Your task to perform on an android device: refresh tabs in the chrome app Image 0: 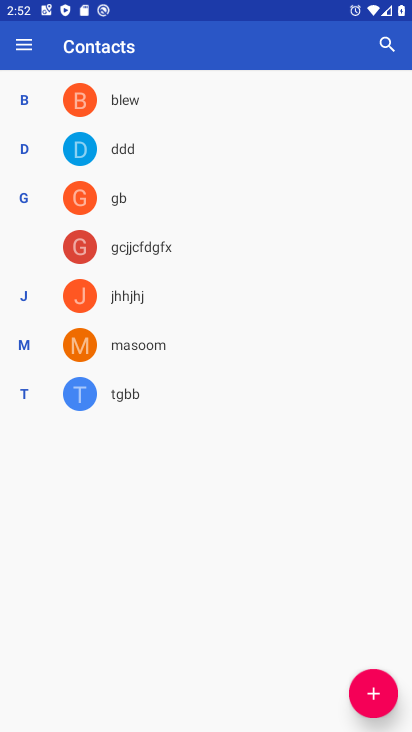
Step 0: press home button
Your task to perform on an android device: refresh tabs in the chrome app Image 1: 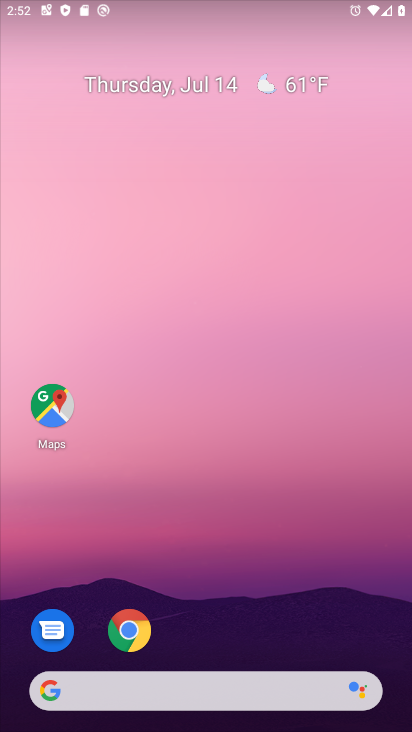
Step 1: click (124, 629)
Your task to perform on an android device: refresh tabs in the chrome app Image 2: 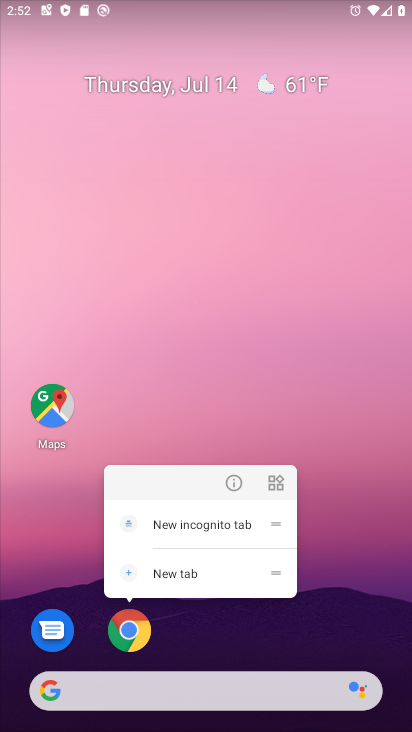
Step 2: click (134, 630)
Your task to perform on an android device: refresh tabs in the chrome app Image 3: 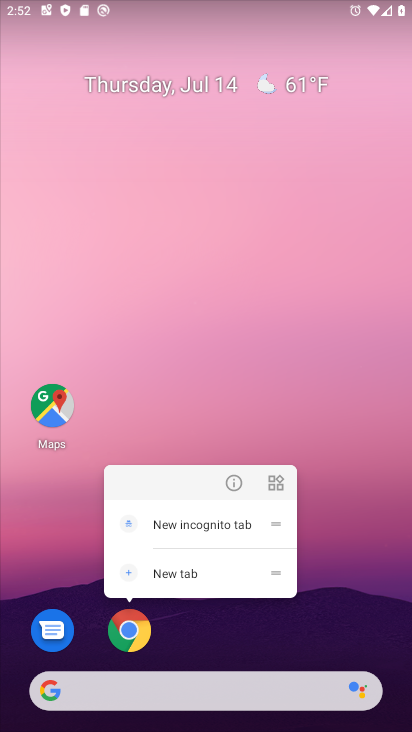
Step 3: click (128, 634)
Your task to perform on an android device: refresh tabs in the chrome app Image 4: 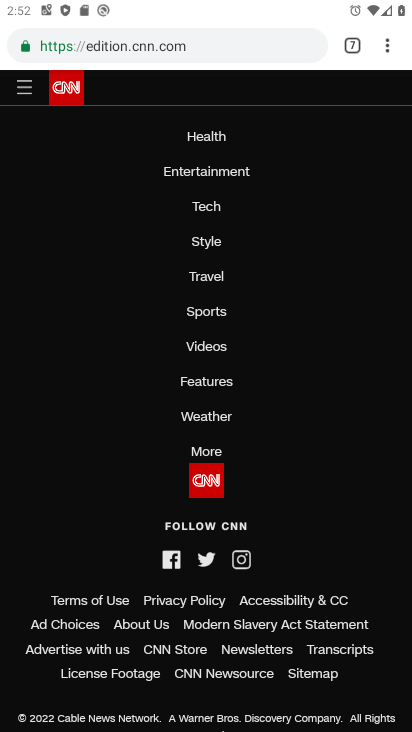
Step 4: click (387, 57)
Your task to perform on an android device: refresh tabs in the chrome app Image 5: 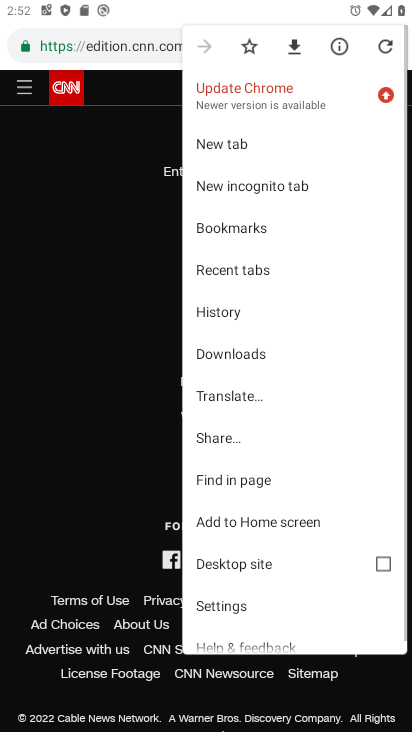
Step 5: click (384, 40)
Your task to perform on an android device: refresh tabs in the chrome app Image 6: 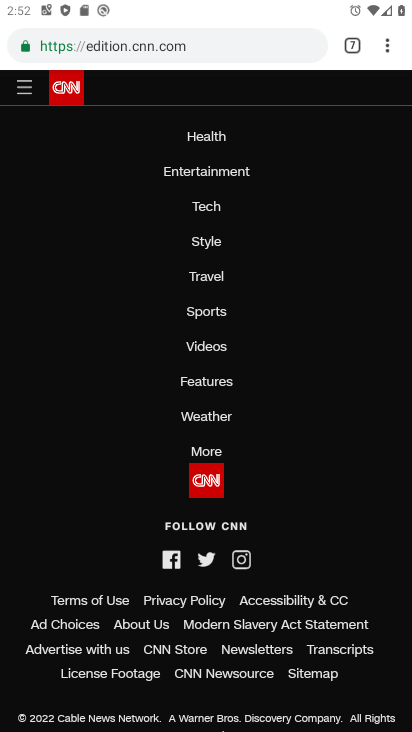
Step 6: click (383, 57)
Your task to perform on an android device: refresh tabs in the chrome app Image 7: 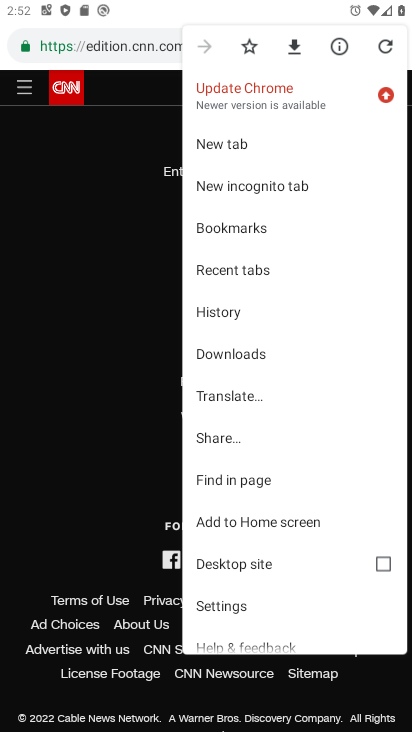
Step 7: click (388, 42)
Your task to perform on an android device: refresh tabs in the chrome app Image 8: 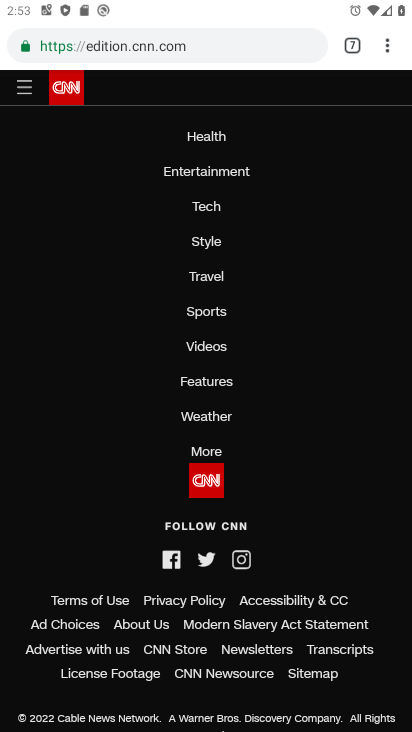
Step 8: task complete